Your task to perform on an android device: Open network settings Image 0: 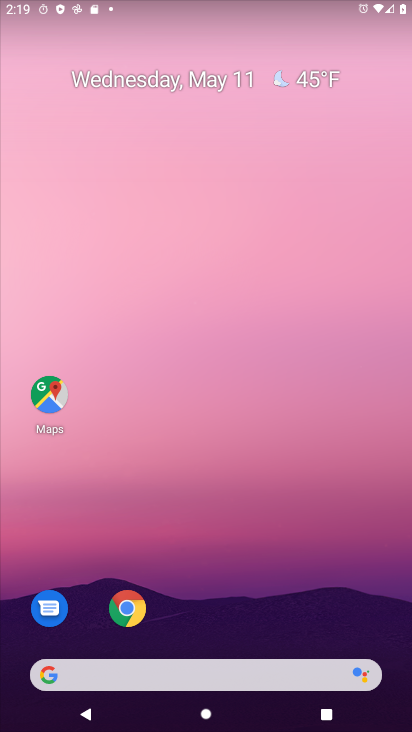
Step 0: drag from (266, 603) to (268, 113)
Your task to perform on an android device: Open network settings Image 1: 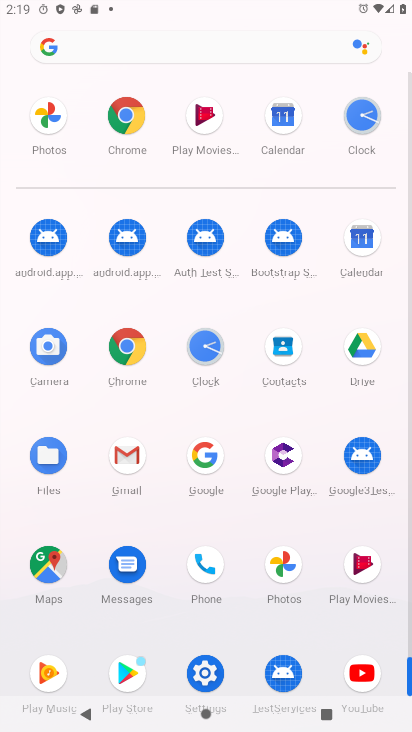
Step 1: click (207, 674)
Your task to perform on an android device: Open network settings Image 2: 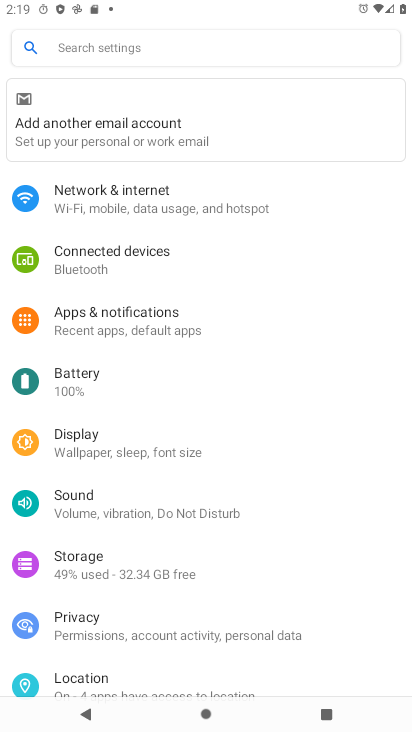
Step 2: click (139, 196)
Your task to perform on an android device: Open network settings Image 3: 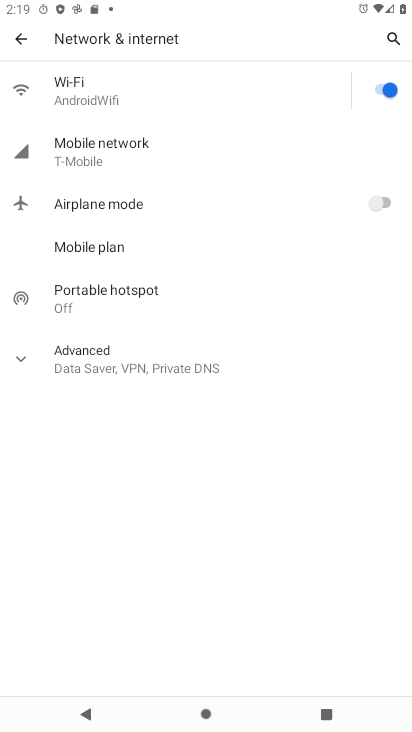
Step 3: click (118, 145)
Your task to perform on an android device: Open network settings Image 4: 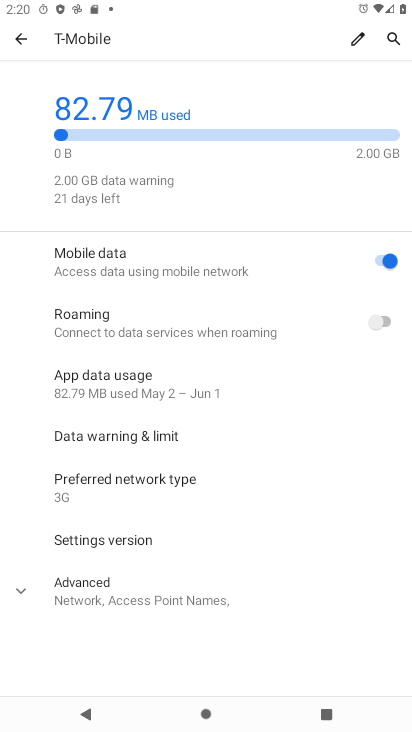
Step 4: task complete